Your task to perform on an android device: uninstall "HBO Max: Stream TV & Movies" Image 0: 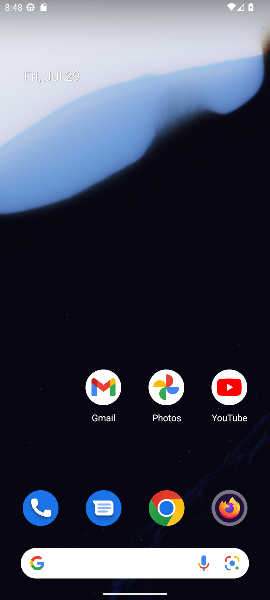
Step 0: drag from (87, 448) to (63, 76)
Your task to perform on an android device: uninstall "HBO Max: Stream TV & Movies" Image 1: 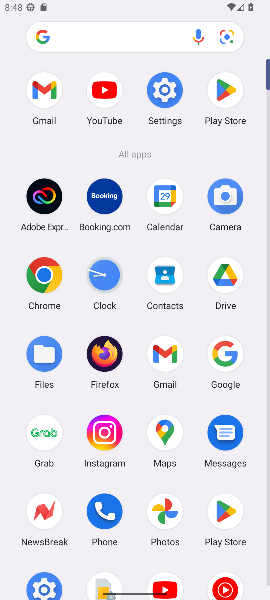
Step 1: click (238, 88)
Your task to perform on an android device: uninstall "HBO Max: Stream TV & Movies" Image 2: 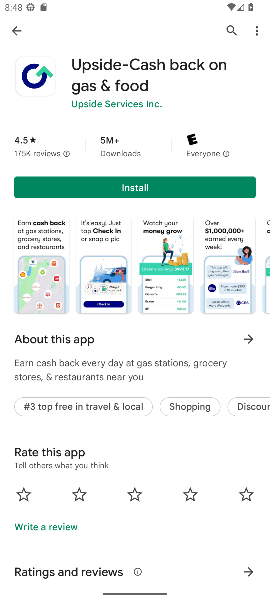
Step 2: click (230, 35)
Your task to perform on an android device: uninstall "HBO Max: Stream TV & Movies" Image 3: 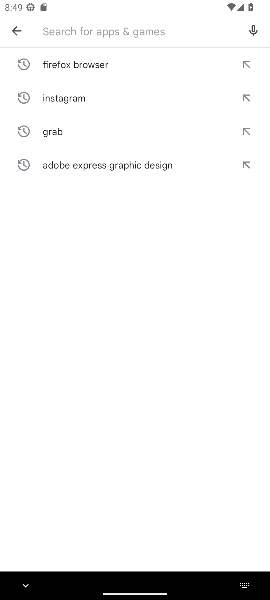
Step 3: type "HBO Max: Stream TV & movies"
Your task to perform on an android device: uninstall "HBO Max: Stream TV & Movies" Image 4: 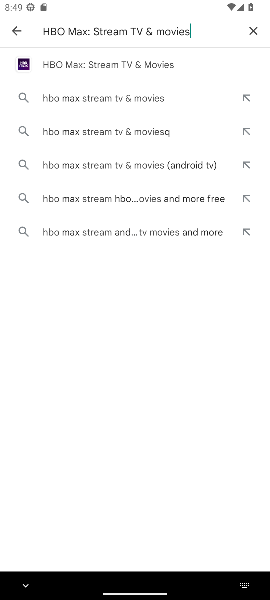
Step 4: click (189, 65)
Your task to perform on an android device: uninstall "HBO Max: Stream TV & Movies" Image 5: 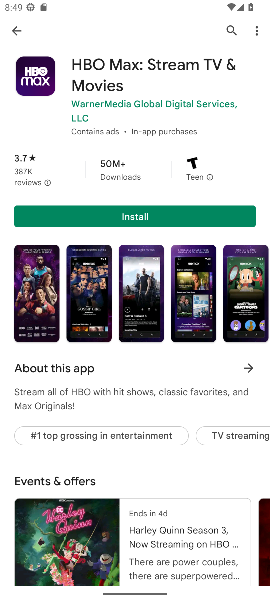
Step 5: task complete